Your task to perform on an android device: remove spam from my inbox in the gmail app Image 0: 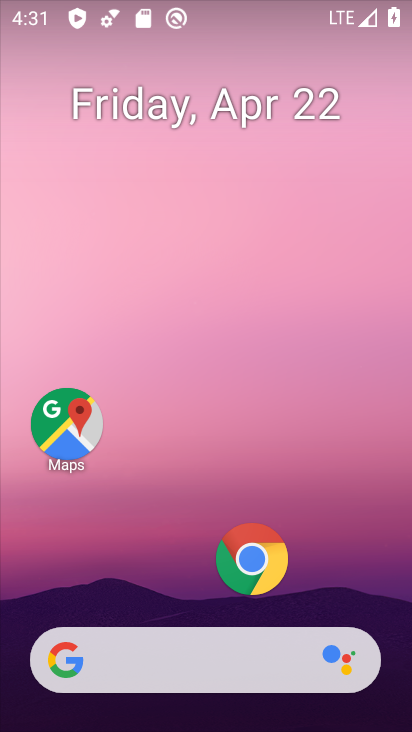
Step 0: drag from (185, 293) to (231, 13)
Your task to perform on an android device: remove spam from my inbox in the gmail app Image 1: 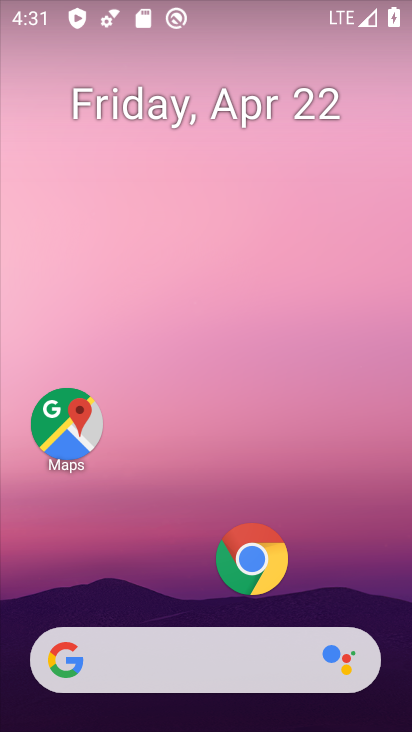
Step 1: drag from (169, 525) to (223, 88)
Your task to perform on an android device: remove spam from my inbox in the gmail app Image 2: 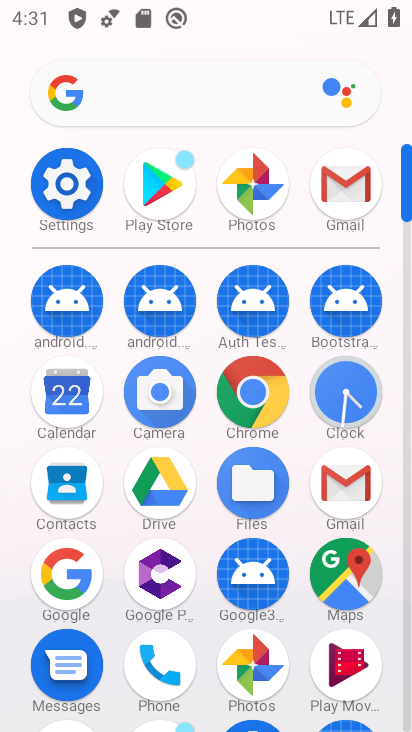
Step 2: click (336, 482)
Your task to perform on an android device: remove spam from my inbox in the gmail app Image 3: 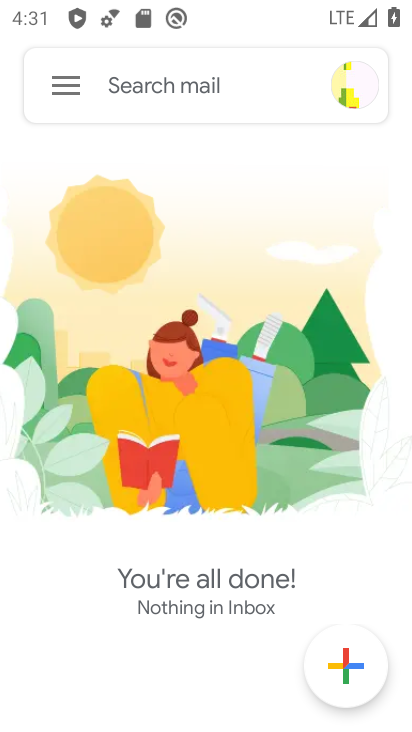
Step 3: click (72, 86)
Your task to perform on an android device: remove spam from my inbox in the gmail app Image 4: 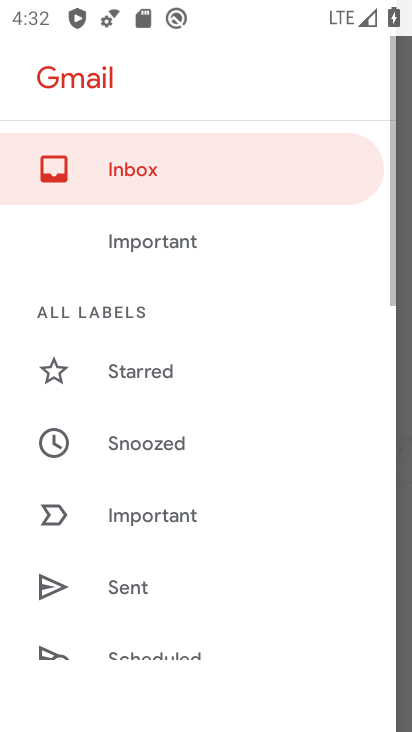
Step 4: drag from (142, 546) to (215, 280)
Your task to perform on an android device: remove spam from my inbox in the gmail app Image 5: 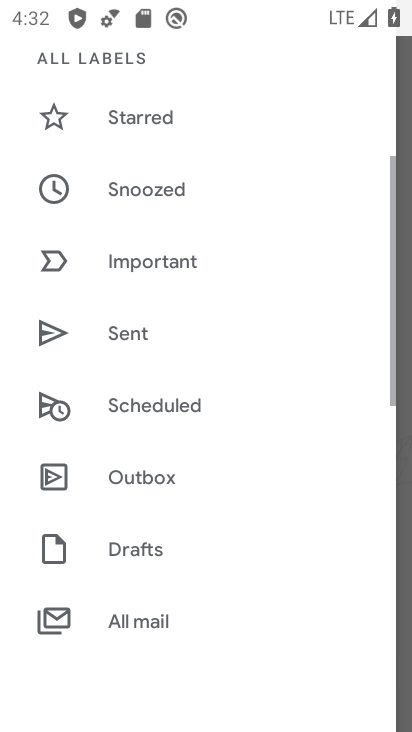
Step 5: drag from (144, 577) to (211, 246)
Your task to perform on an android device: remove spam from my inbox in the gmail app Image 6: 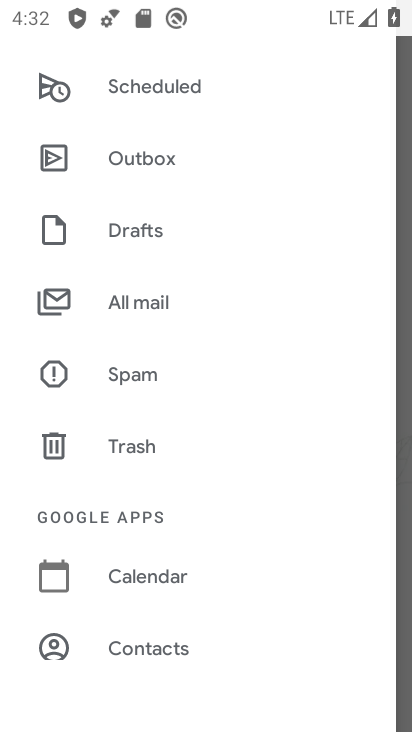
Step 6: click (135, 388)
Your task to perform on an android device: remove spam from my inbox in the gmail app Image 7: 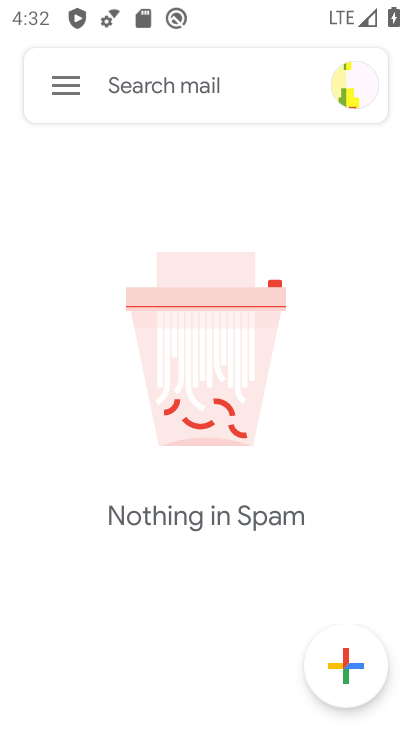
Step 7: task complete